Your task to perform on an android device: Open Chrome and go to settings Image 0: 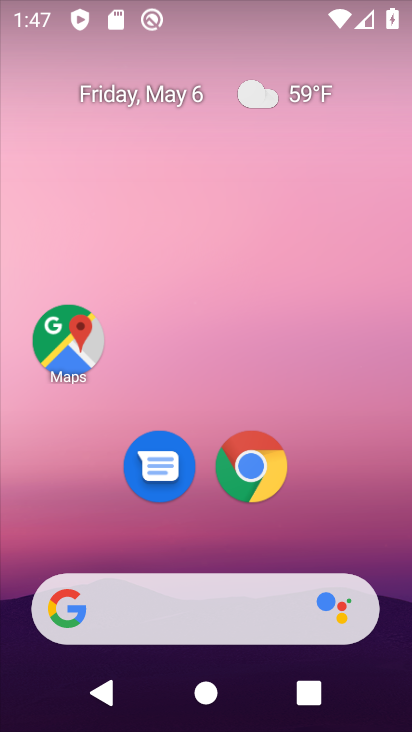
Step 0: press home button
Your task to perform on an android device: Open Chrome and go to settings Image 1: 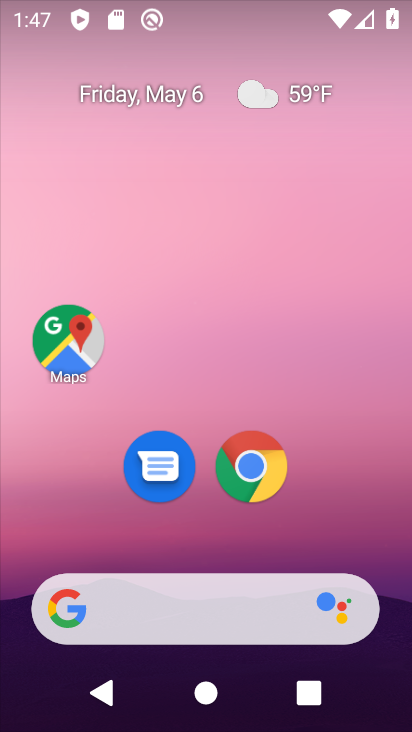
Step 1: drag from (216, 535) to (265, 86)
Your task to perform on an android device: Open Chrome and go to settings Image 2: 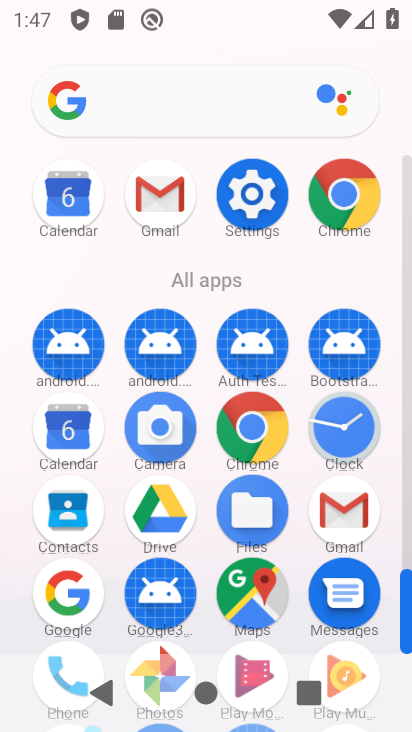
Step 2: click (250, 416)
Your task to perform on an android device: Open Chrome and go to settings Image 3: 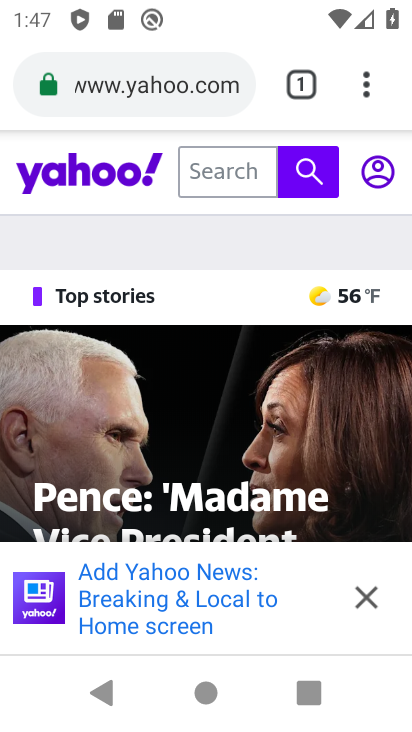
Step 3: click (364, 80)
Your task to perform on an android device: Open Chrome and go to settings Image 4: 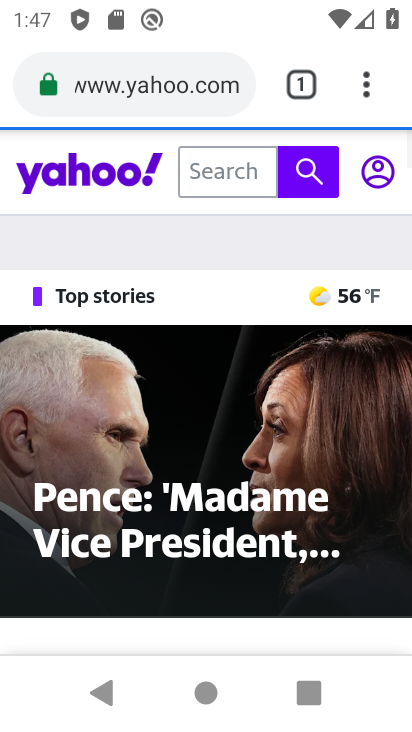
Step 4: click (363, 98)
Your task to perform on an android device: Open Chrome and go to settings Image 5: 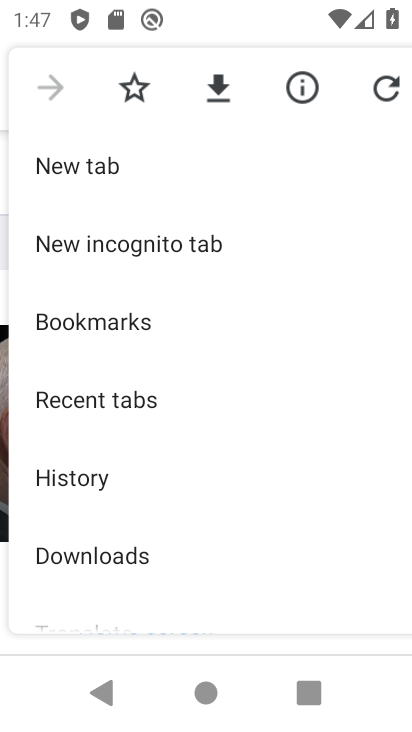
Step 5: drag from (141, 550) to (202, 82)
Your task to perform on an android device: Open Chrome and go to settings Image 6: 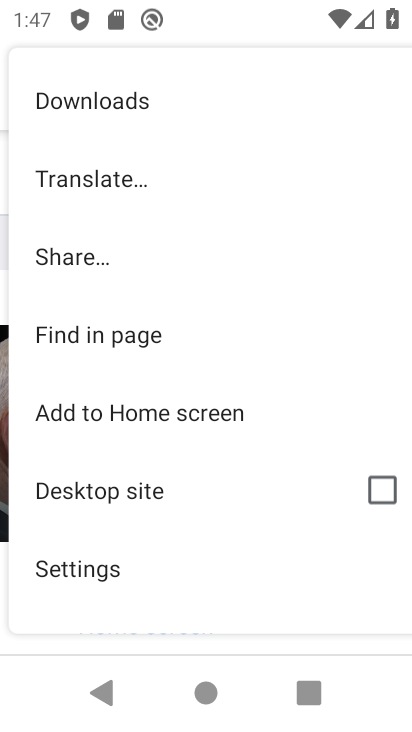
Step 6: click (131, 566)
Your task to perform on an android device: Open Chrome and go to settings Image 7: 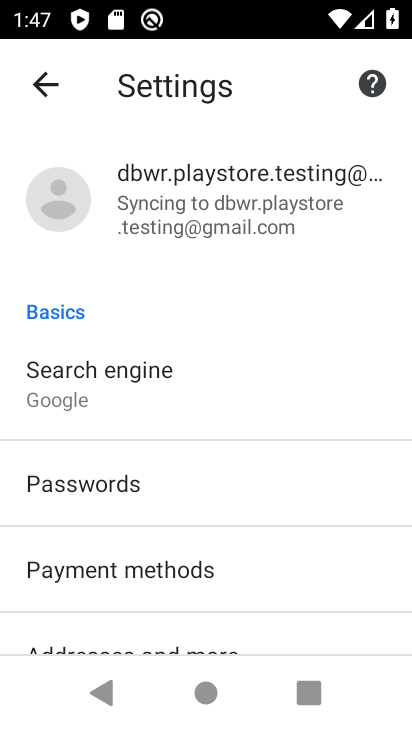
Step 7: task complete